Your task to perform on an android device: change timer sound Image 0: 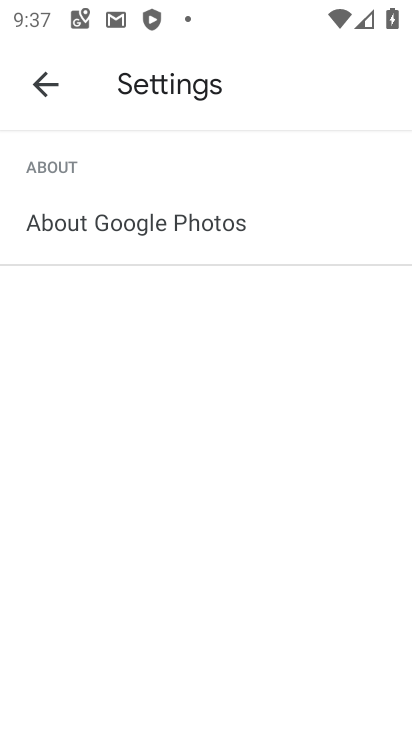
Step 0: press home button
Your task to perform on an android device: change timer sound Image 1: 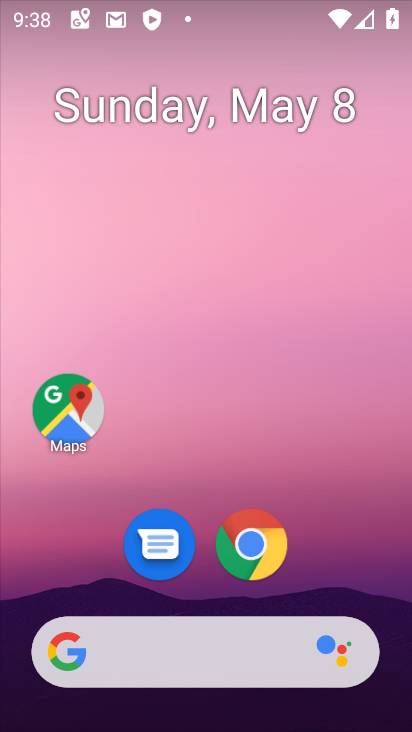
Step 1: drag from (333, 552) to (283, 18)
Your task to perform on an android device: change timer sound Image 2: 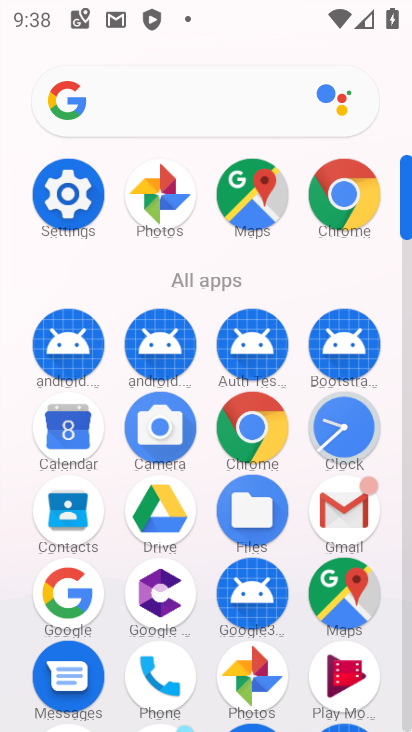
Step 2: click (70, 206)
Your task to perform on an android device: change timer sound Image 3: 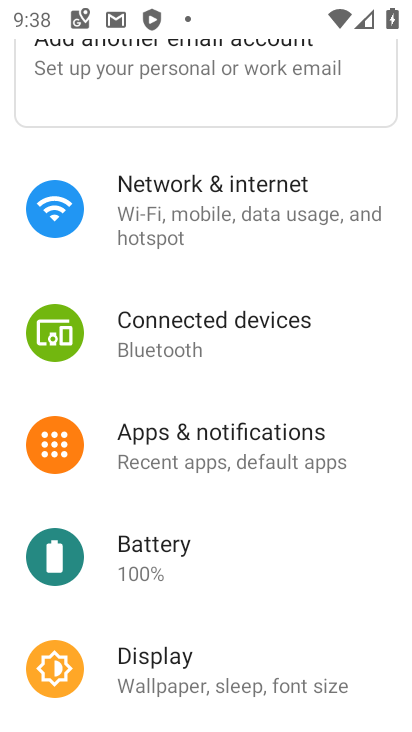
Step 3: click (259, 624)
Your task to perform on an android device: change timer sound Image 4: 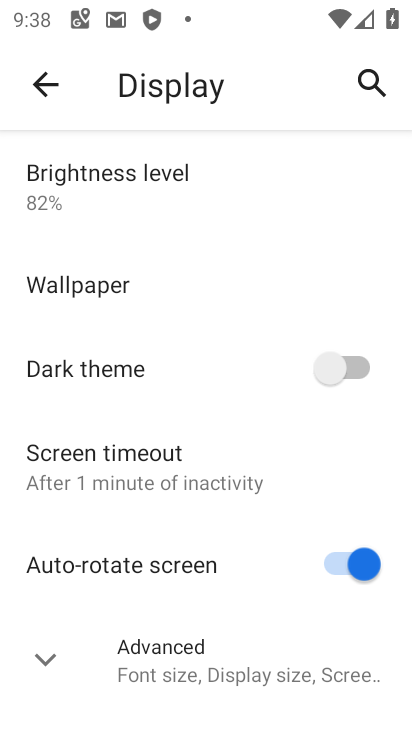
Step 4: press home button
Your task to perform on an android device: change timer sound Image 5: 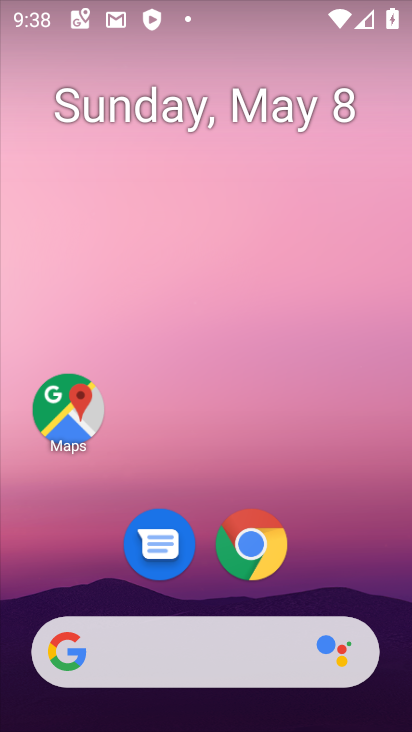
Step 5: drag from (319, 580) to (307, 33)
Your task to perform on an android device: change timer sound Image 6: 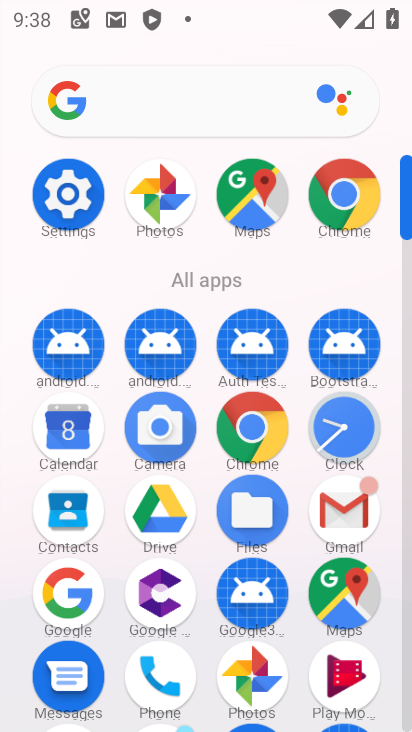
Step 6: click (325, 435)
Your task to perform on an android device: change timer sound Image 7: 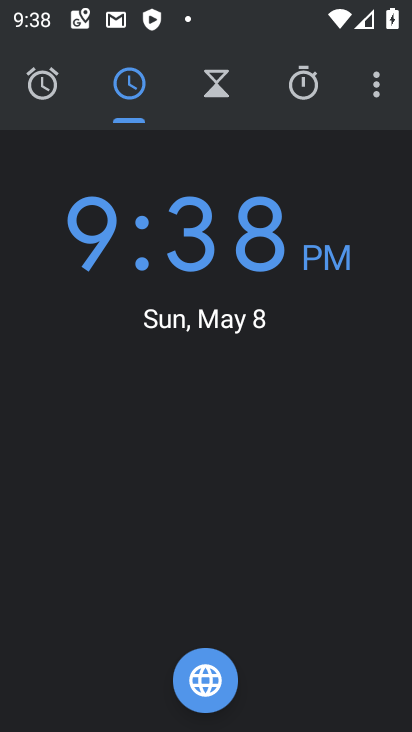
Step 7: click (248, 99)
Your task to perform on an android device: change timer sound Image 8: 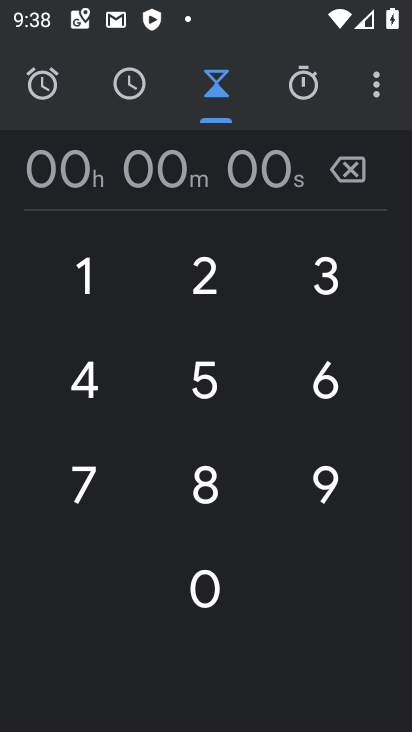
Step 8: task complete